Your task to perform on an android device: turn on javascript in the chrome app Image 0: 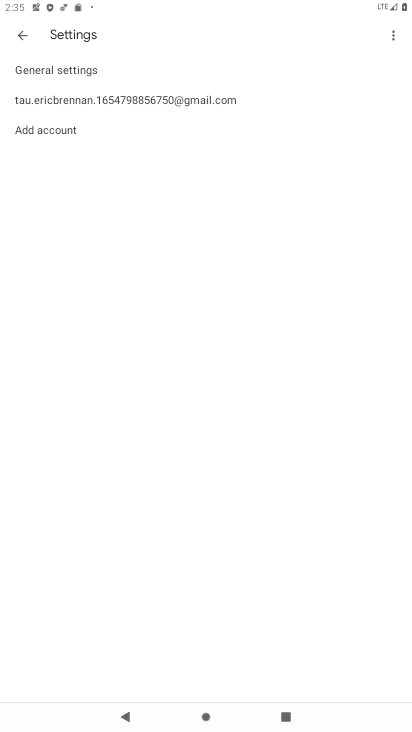
Step 0: press home button
Your task to perform on an android device: turn on javascript in the chrome app Image 1: 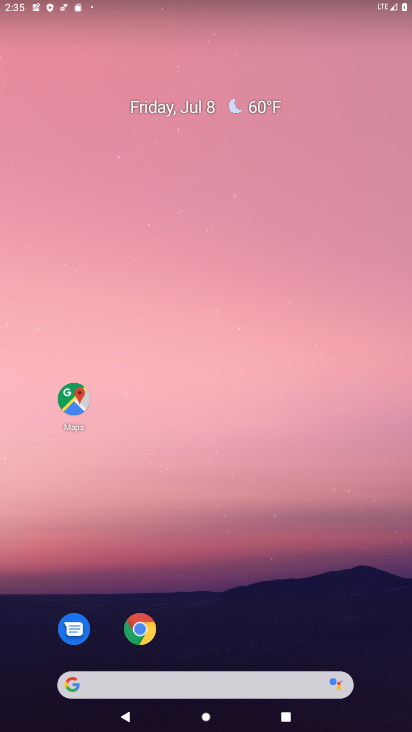
Step 1: click (148, 623)
Your task to perform on an android device: turn on javascript in the chrome app Image 2: 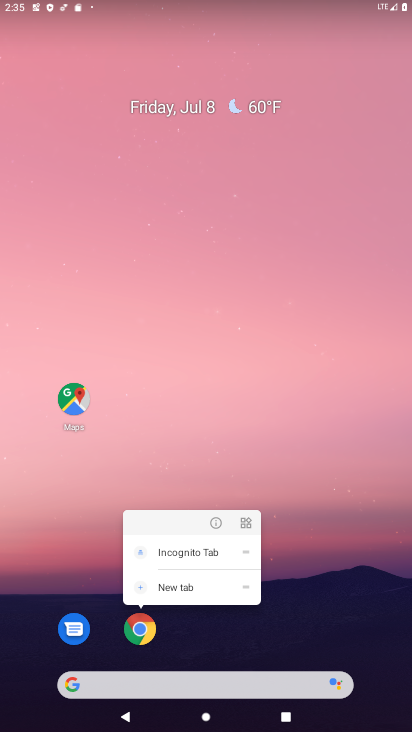
Step 2: click (139, 631)
Your task to perform on an android device: turn on javascript in the chrome app Image 3: 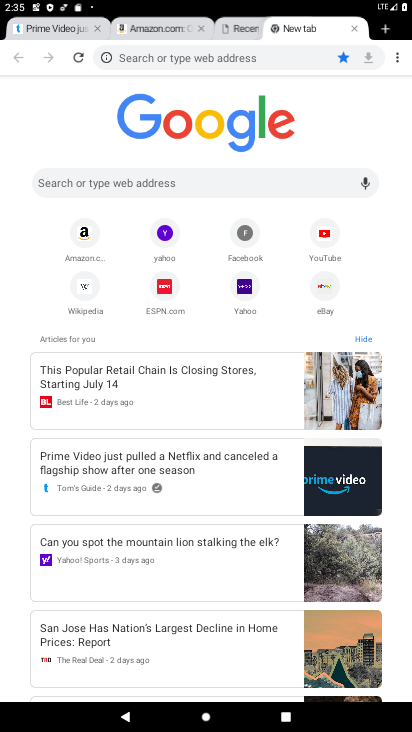
Step 3: click (394, 54)
Your task to perform on an android device: turn on javascript in the chrome app Image 4: 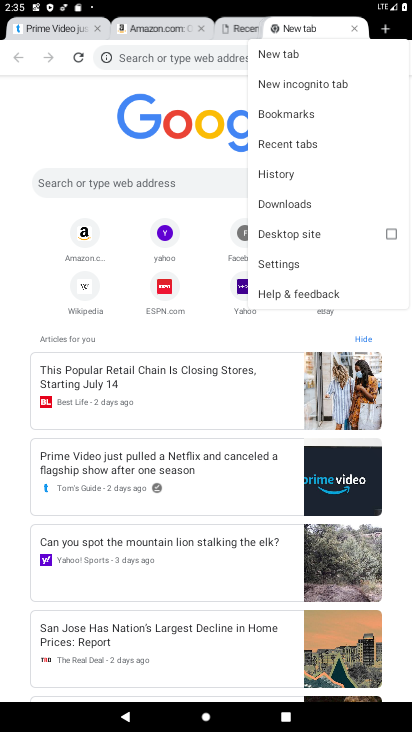
Step 4: click (277, 260)
Your task to perform on an android device: turn on javascript in the chrome app Image 5: 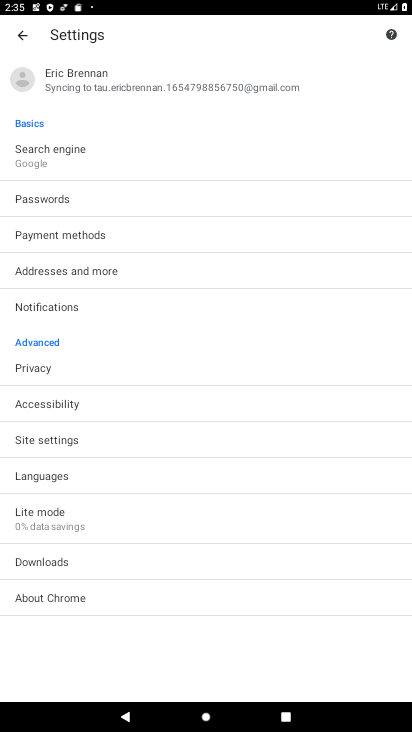
Step 5: click (88, 447)
Your task to perform on an android device: turn on javascript in the chrome app Image 6: 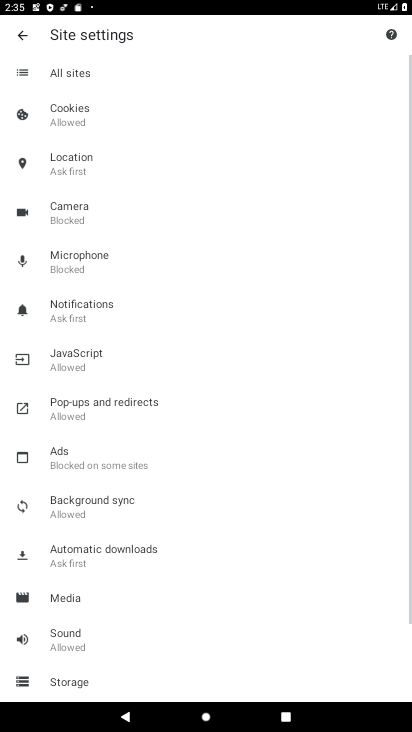
Step 6: click (97, 363)
Your task to perform on an android device: turn on javascript in the chrome app Image 7: 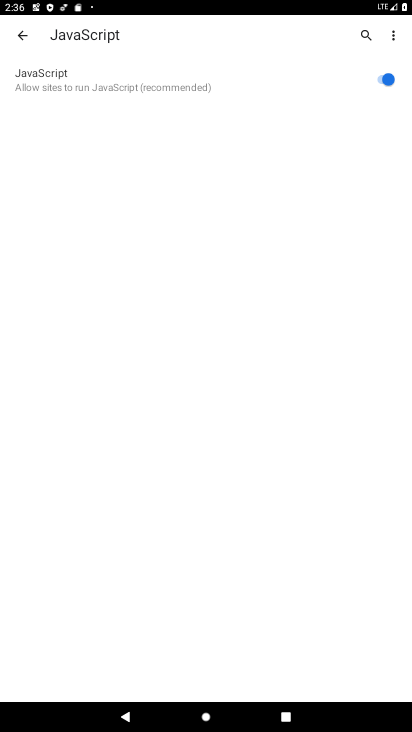
Step 7: task complete